Your task to perform on an android device: Do I have any events this weekend? Image 0: 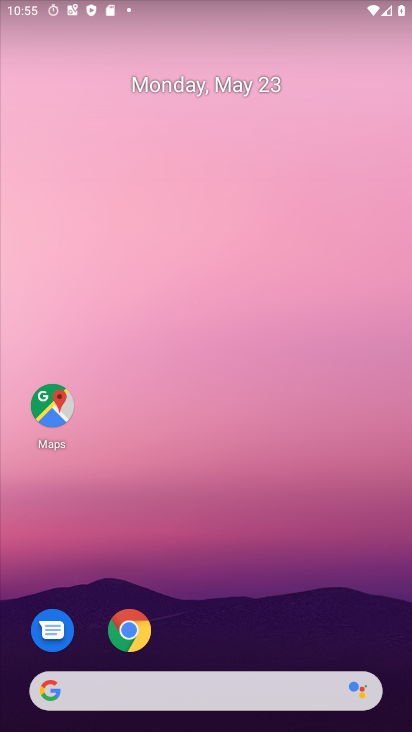
Step 0: drag from (277, 658) to (302, 9)
Your task to perform on an android device: Do I have any events this weekend? Image 1: 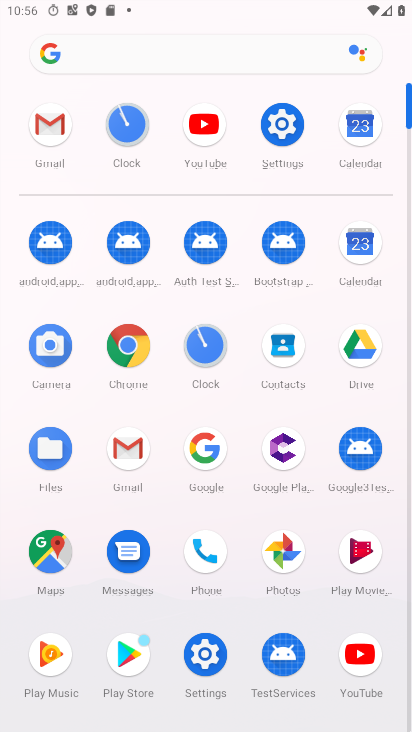
Step 1: click (357, 124)
Your task to perform on an android device: Do I have any events this weekend? Image 2: 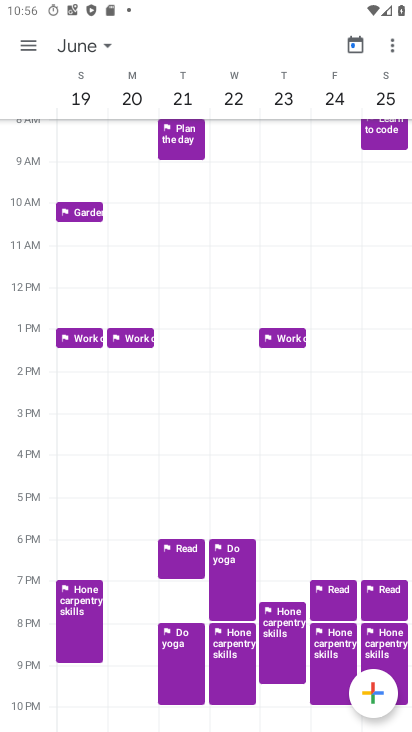
Step 2: click (355, 46)
Your task to perform on an android device: Do I have any events this weekend? Image 3: 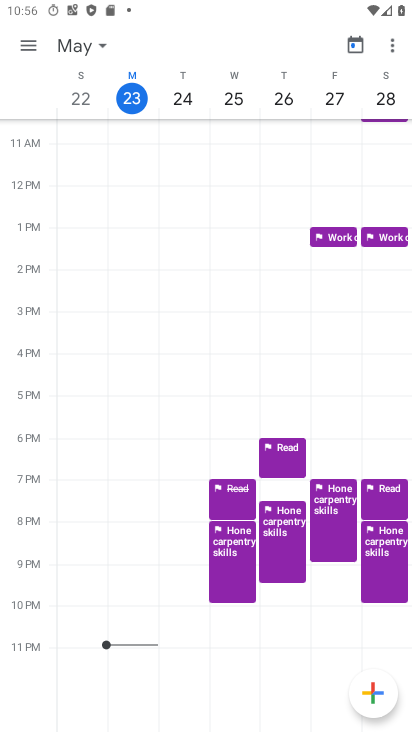
Step 3: click (328, 402)
Your task to perform on an android device: Do I have any events this weekend? Image 4: 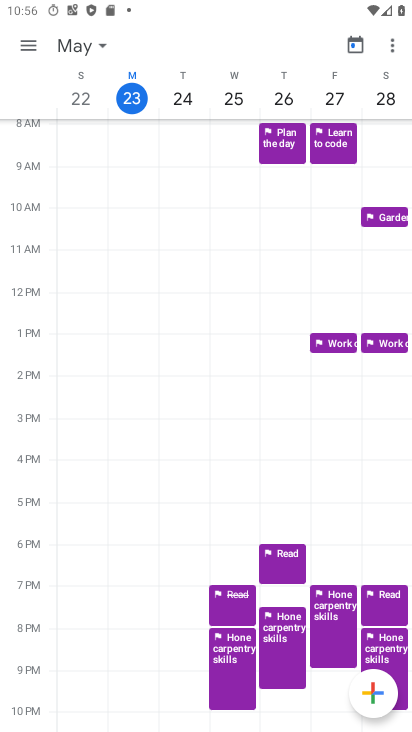
Step 4: click (389, 222)
Your task to perform on an android device: Do I have any events this weekend? Image 5: 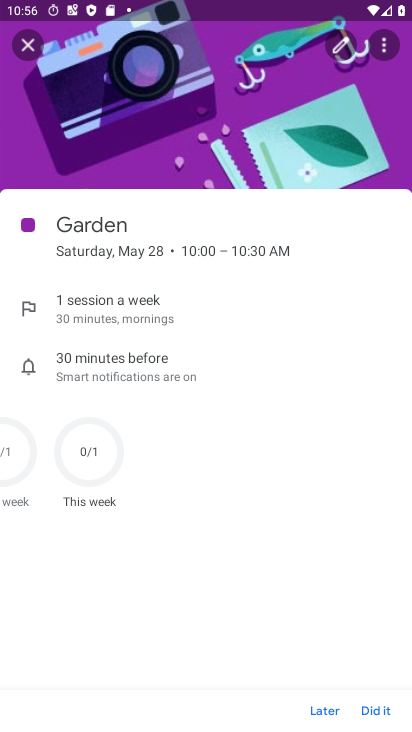
Step 5: task complete